Your task to perform on an android device: check storage Image 0: 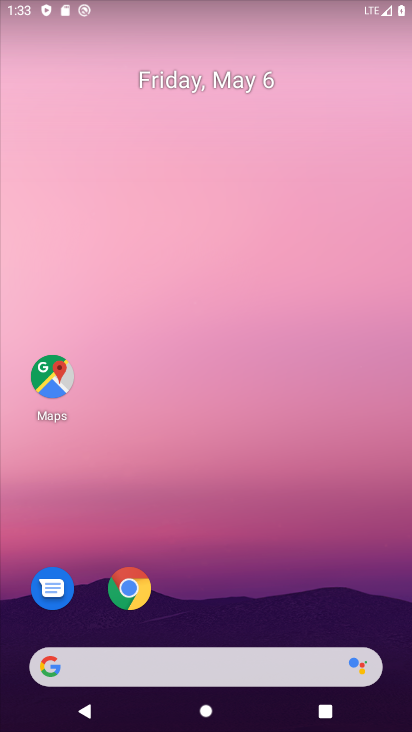
Step 0: drag from (355, 592) to (265, 54)
Your task to perform on an android device: check storage Image 1: 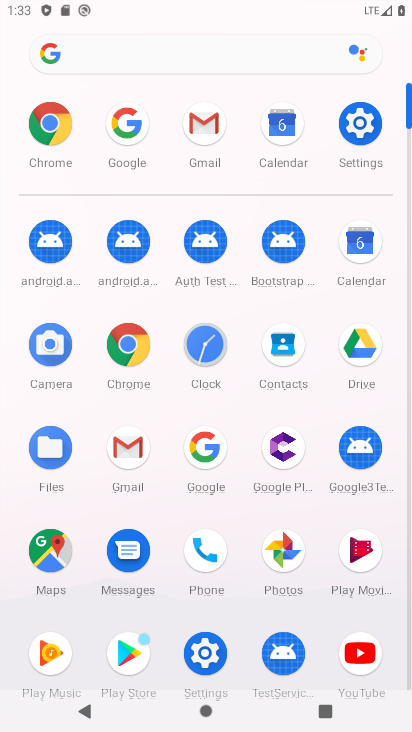
Step 1: click (196, 649)
Your task to perform on an android device: check storage Image 2: 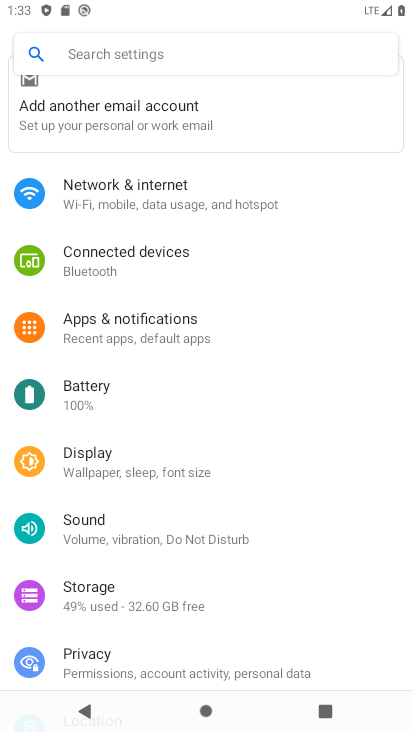
Step 2: click (84, 596)
Your task to perform on an android device: check storage Image 3: 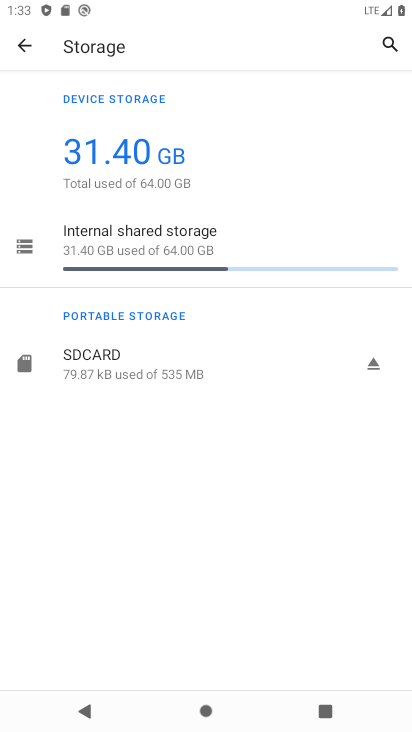
Step 3: click (17, 245)
Your task to perform on an android device: check storage Image 4: 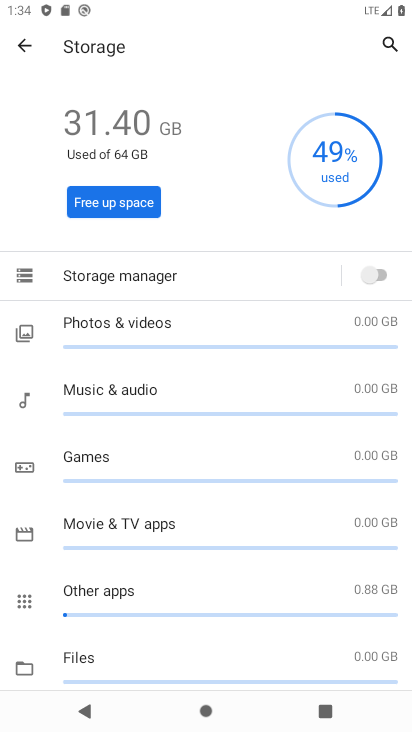
Step 4: task complete